Your task to perform on an android device: open app "File Manager" (install if not already installed) Image 0: 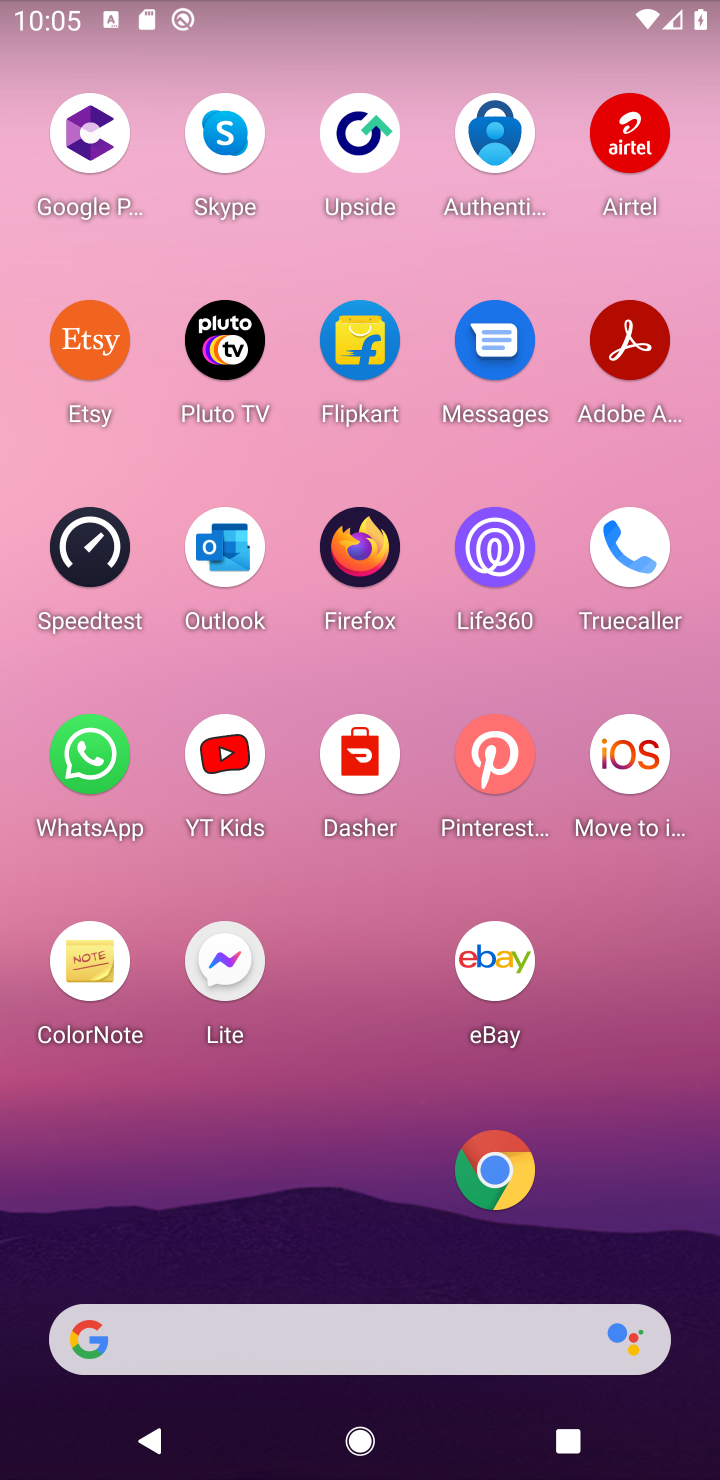
Step 0: drag from (371, 671) to (493, 64)
Your task to perform on an android device: open app "File Manager" (install if not already installed) Image 1: 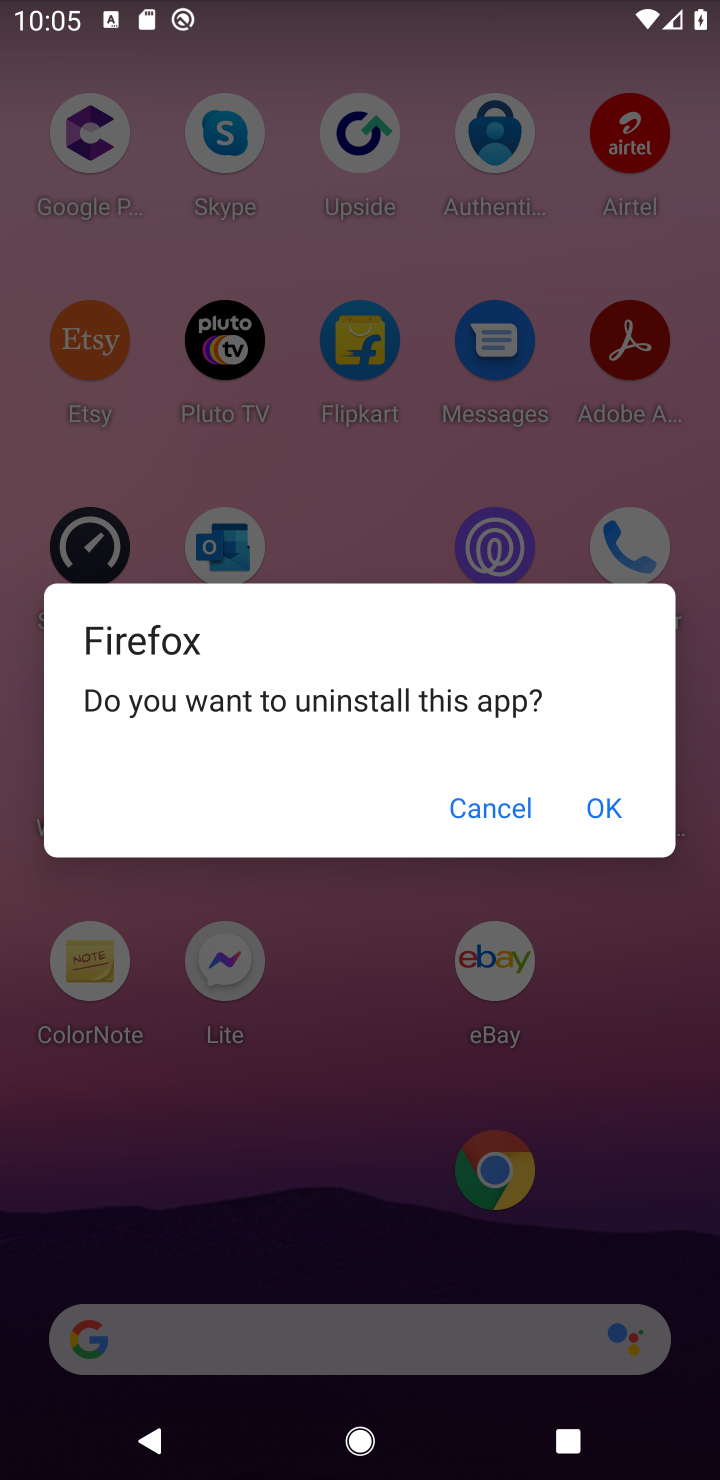
Step 1: click (488, 814)
Your task to perform on an android device: open app "File Manager" (install if not already installed) Image 2: 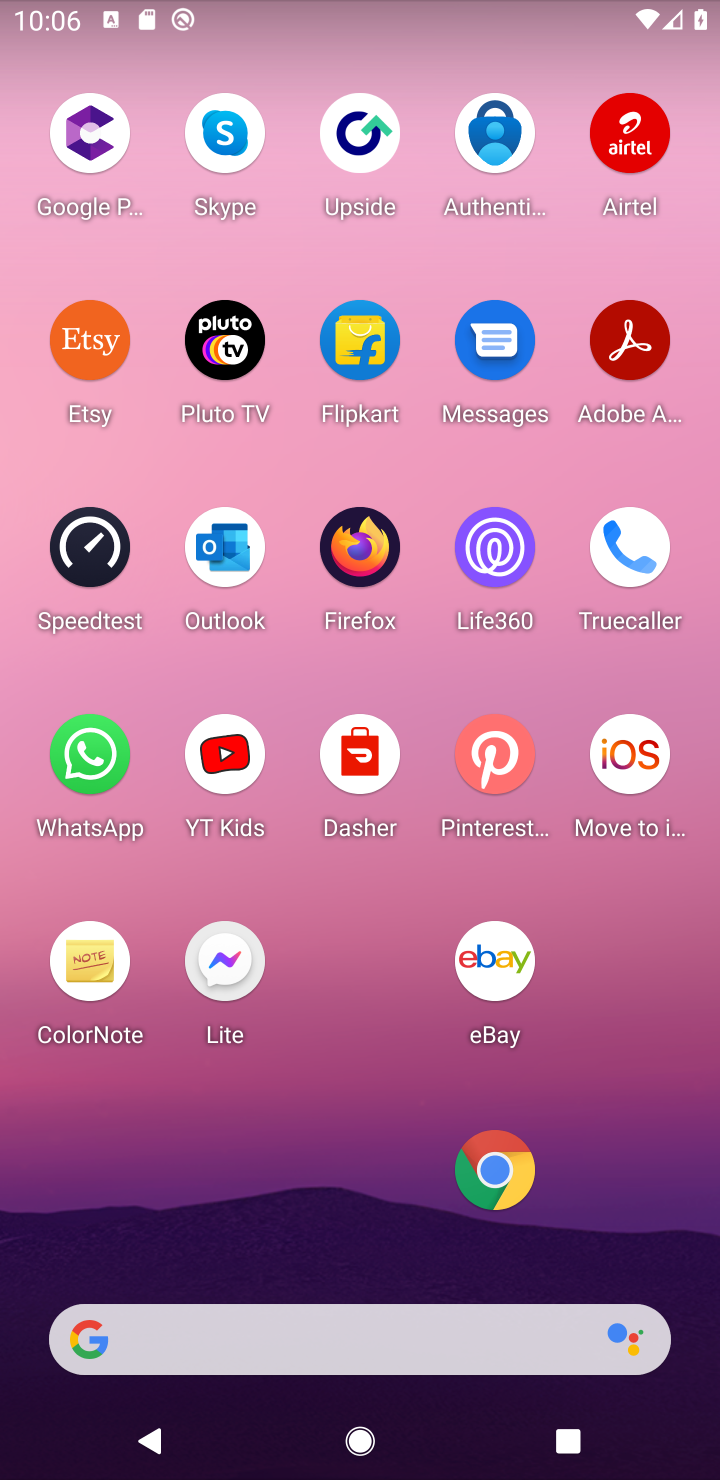
Step 2: drag from (275, 1215) to (407, 50)
Your task to perform on an android device: open app "File Manager" (install if not already installed) Image 3: 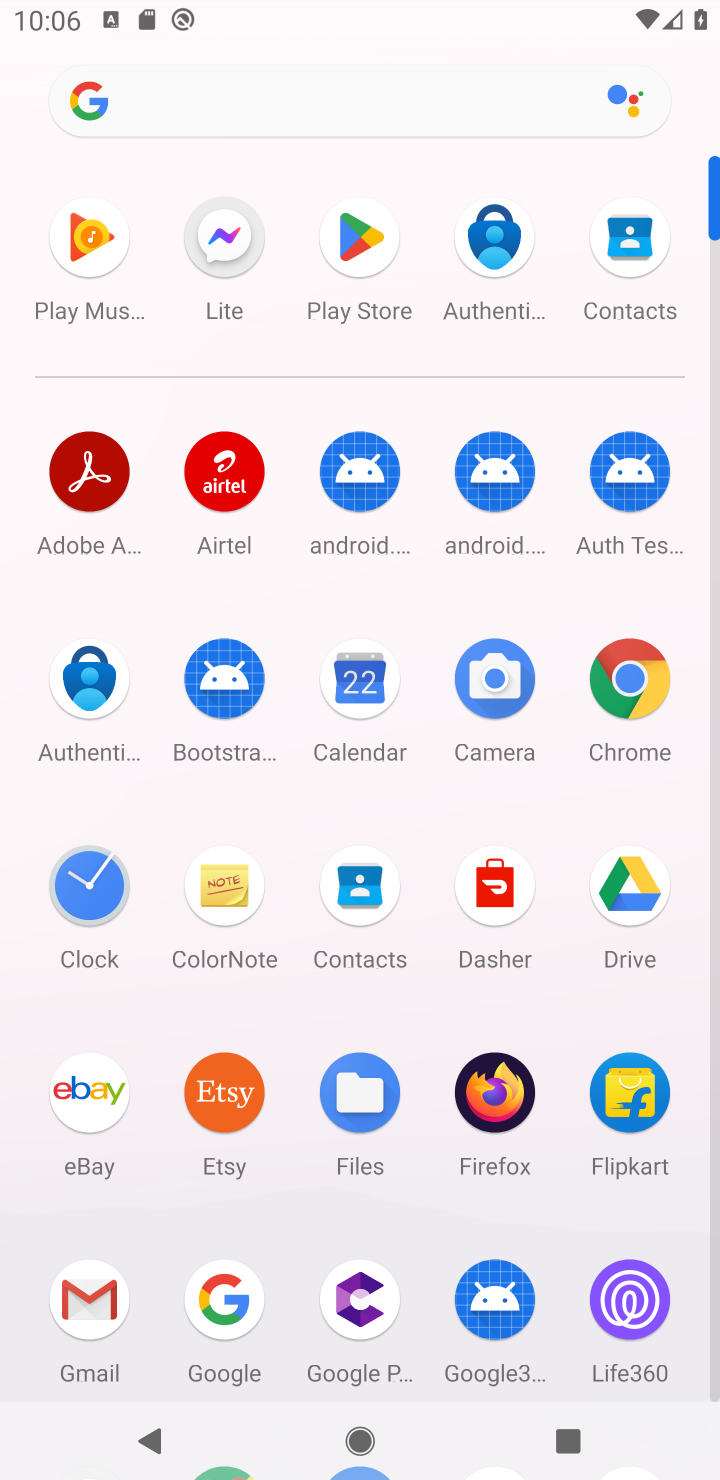
Step 3: click (342, 248)
Your task to perform on an android device: open app "File Manager" (install if not already installed) Image 4: 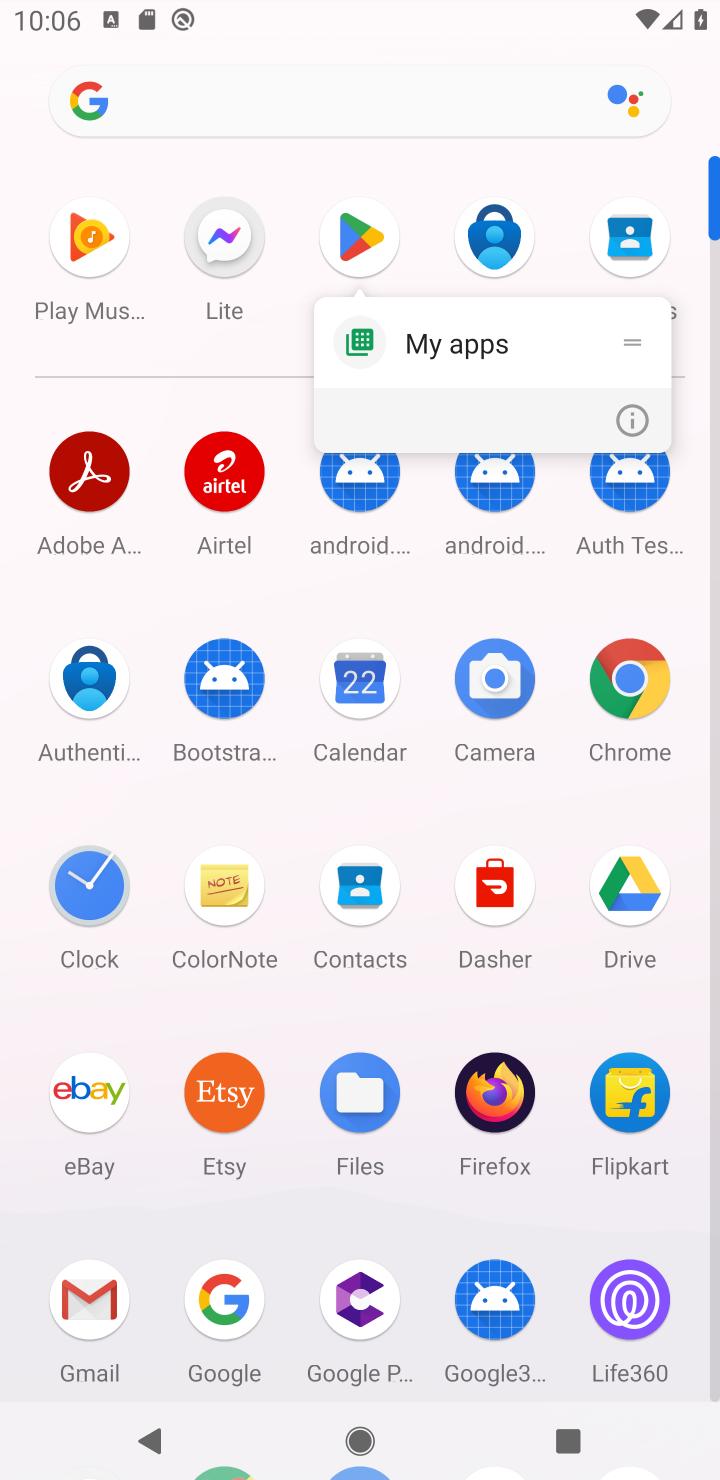
Step 4: click (349, 240)
Your task to perform on an android device: open app "File Manager" (install if not already installed) Image 5: 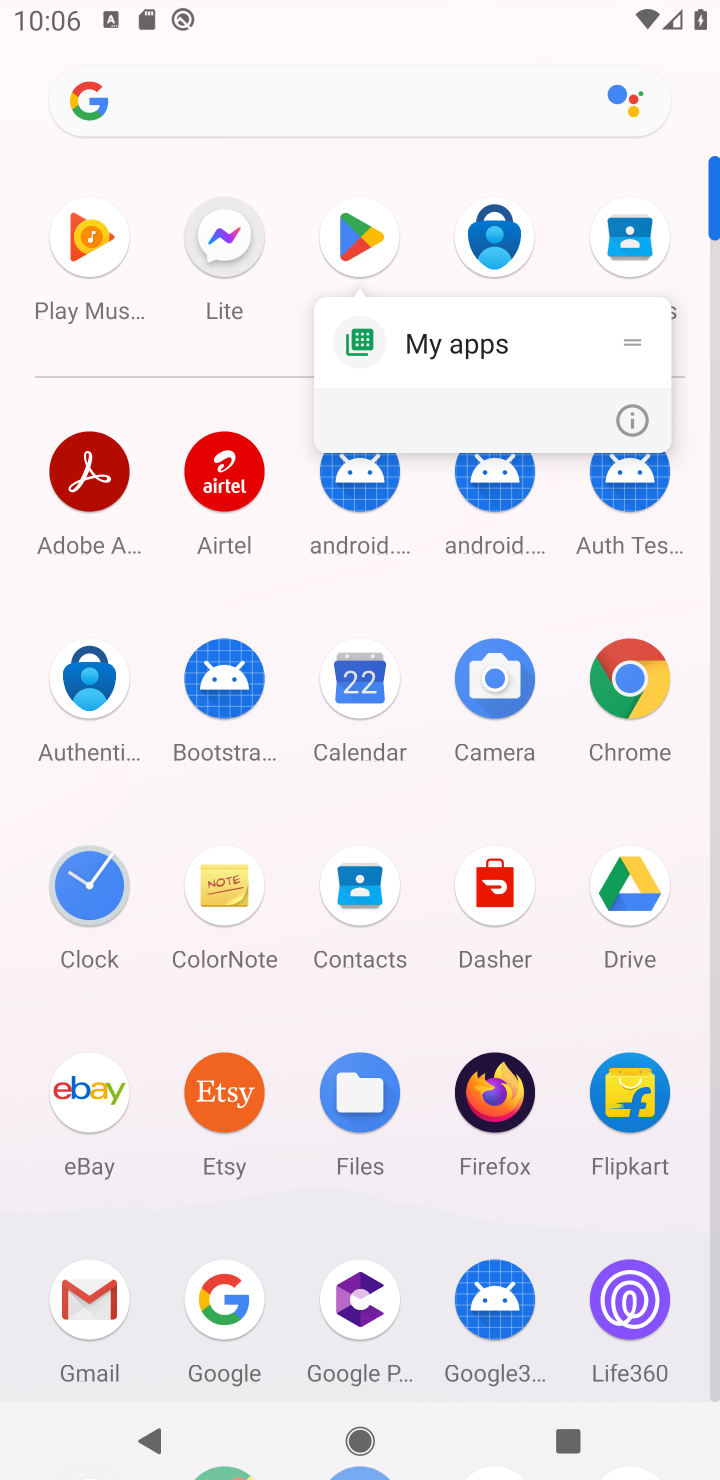
Step 5: click (365, 243)
Your task to perform on an android device: open app "File Manager" (install if not already installed) Image 6: 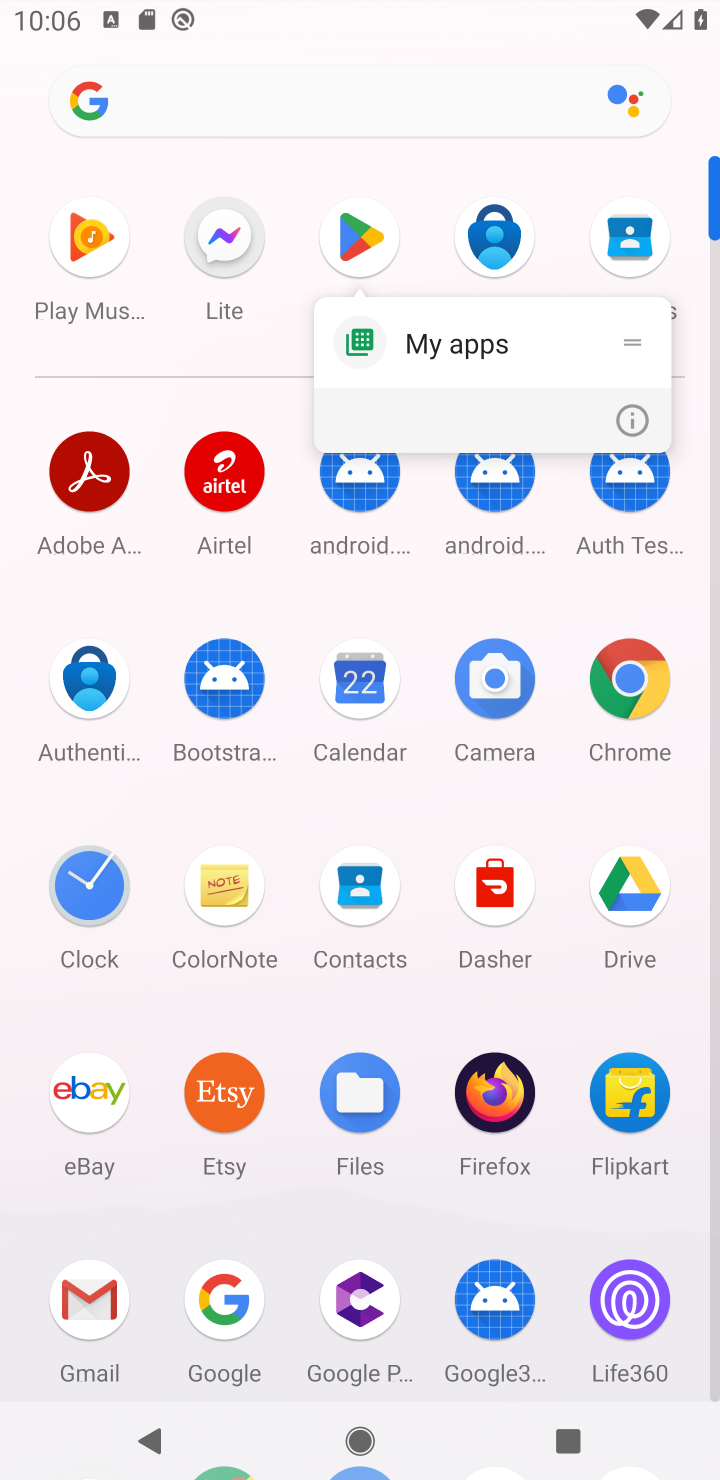
Step 6: click (367, 235)
Your task to perform on an android device: open app "File Manager" (install if not already installed) Image 7: 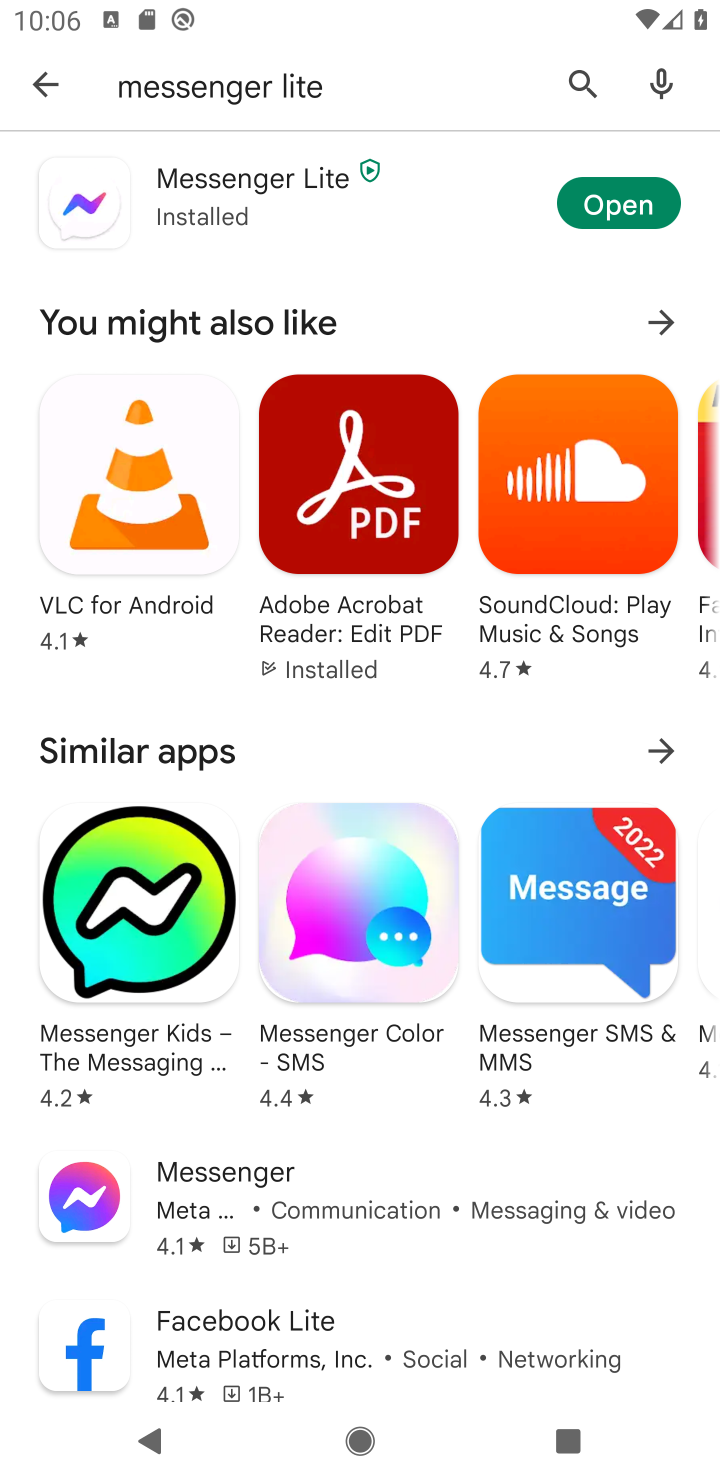
Step 7: click (584, 65)
Your task to perform on an android device: open app "File Manager" (install if not already installed) Image 8: 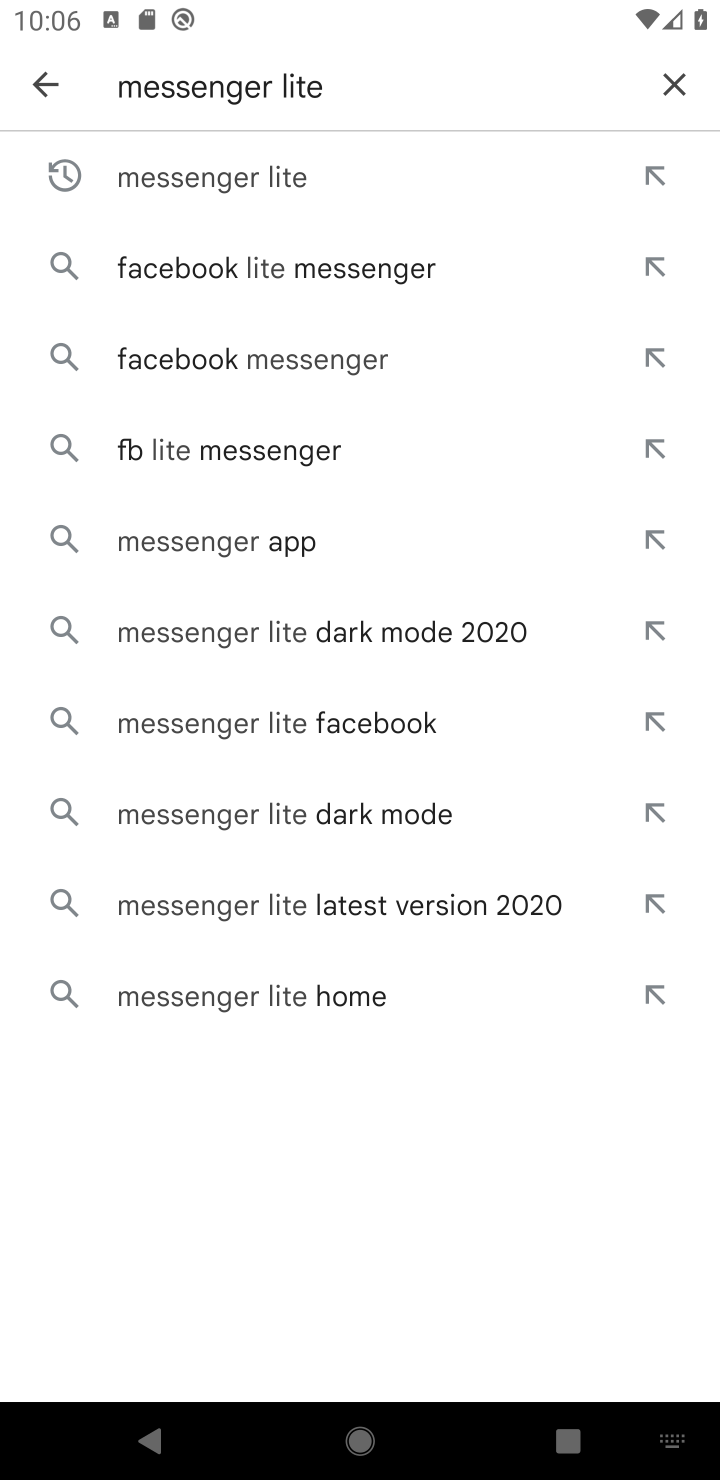
Step 8: click (686, 84)
Your task to perform on an android device: open app "File Manager" (install if not already installed) Image 9: 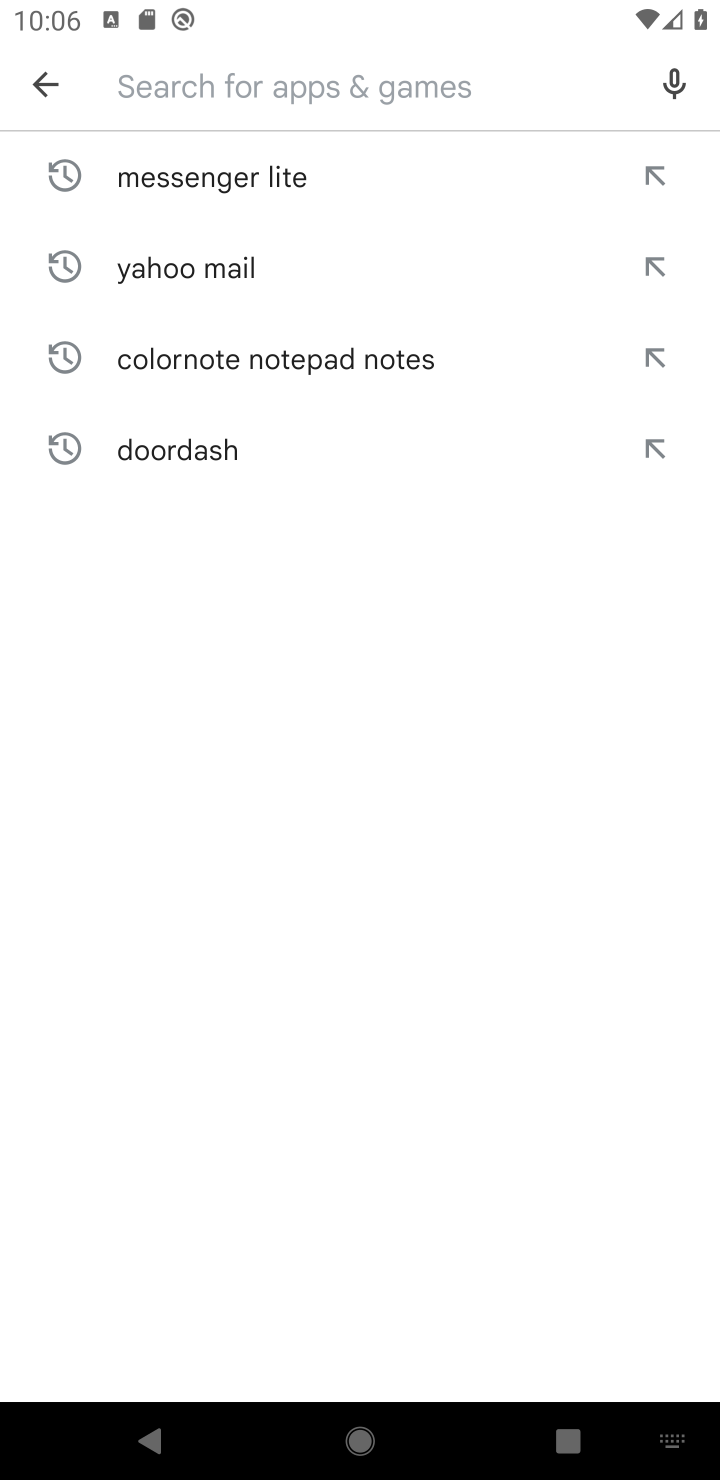
Step 9: click (181, 78)
Your task to perform on an android device: open app "File Manager" (install if not already installed) Image 10: 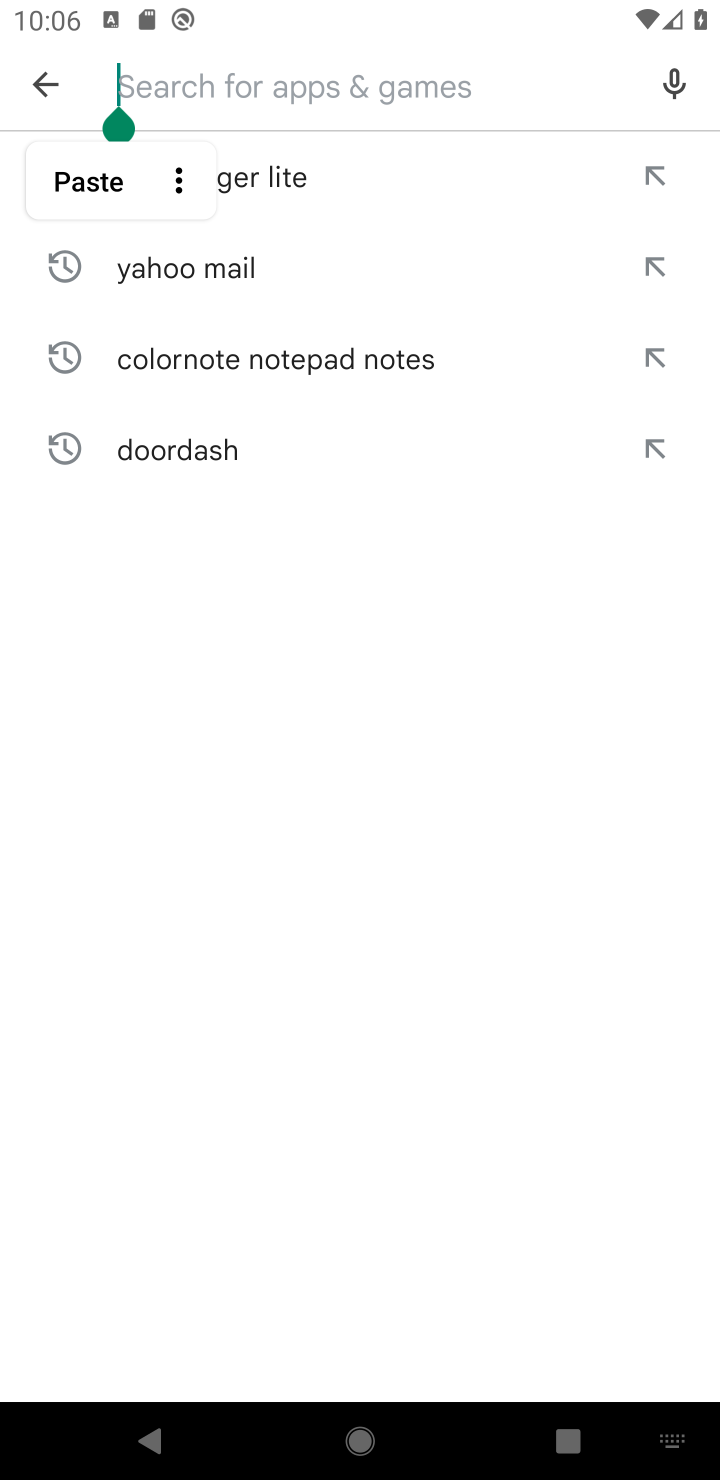
Step 10: type "File Manager"
Your task to perform on an android device: open app "File Manager" (install if not already installed) Image 11: 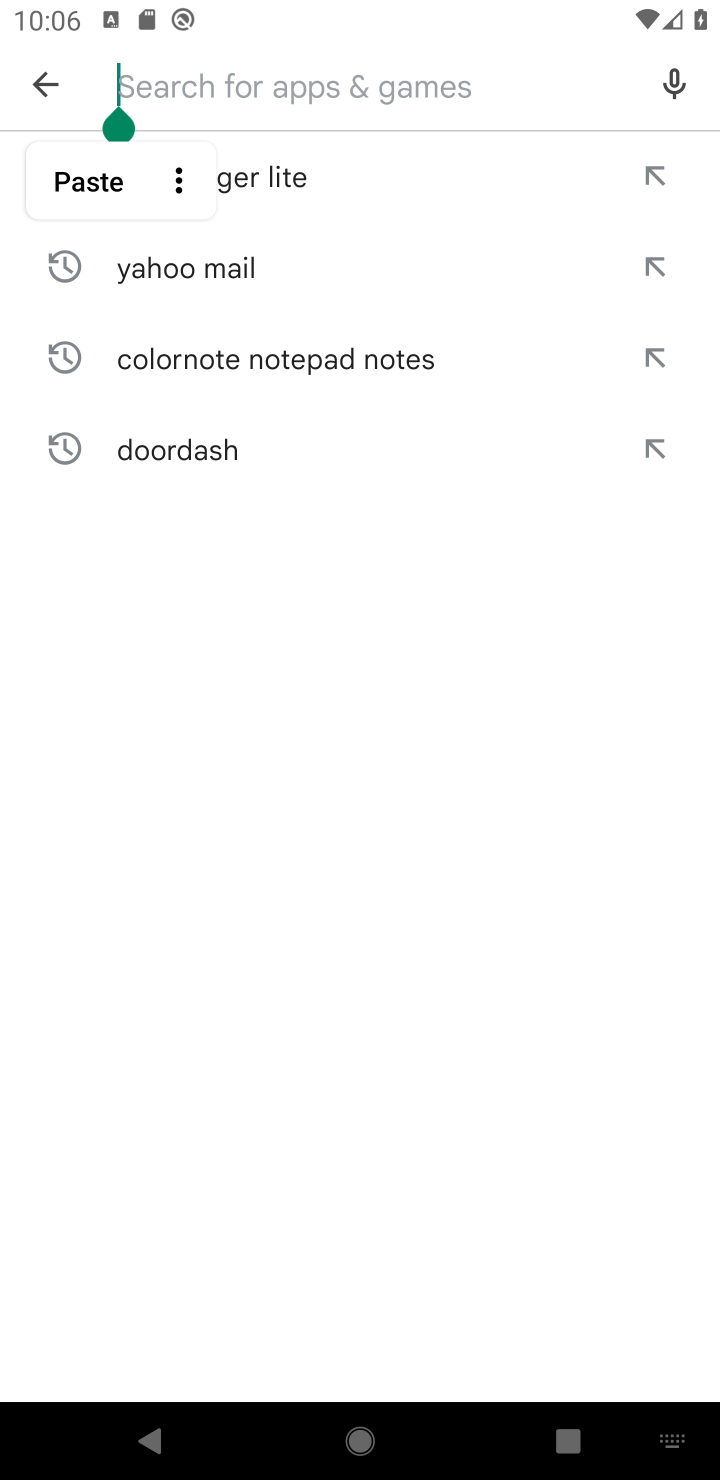
Step 11: click (356, 1098)
Your task to perform on an android device: open app "File Manager" (install if not already installed) Image 12: 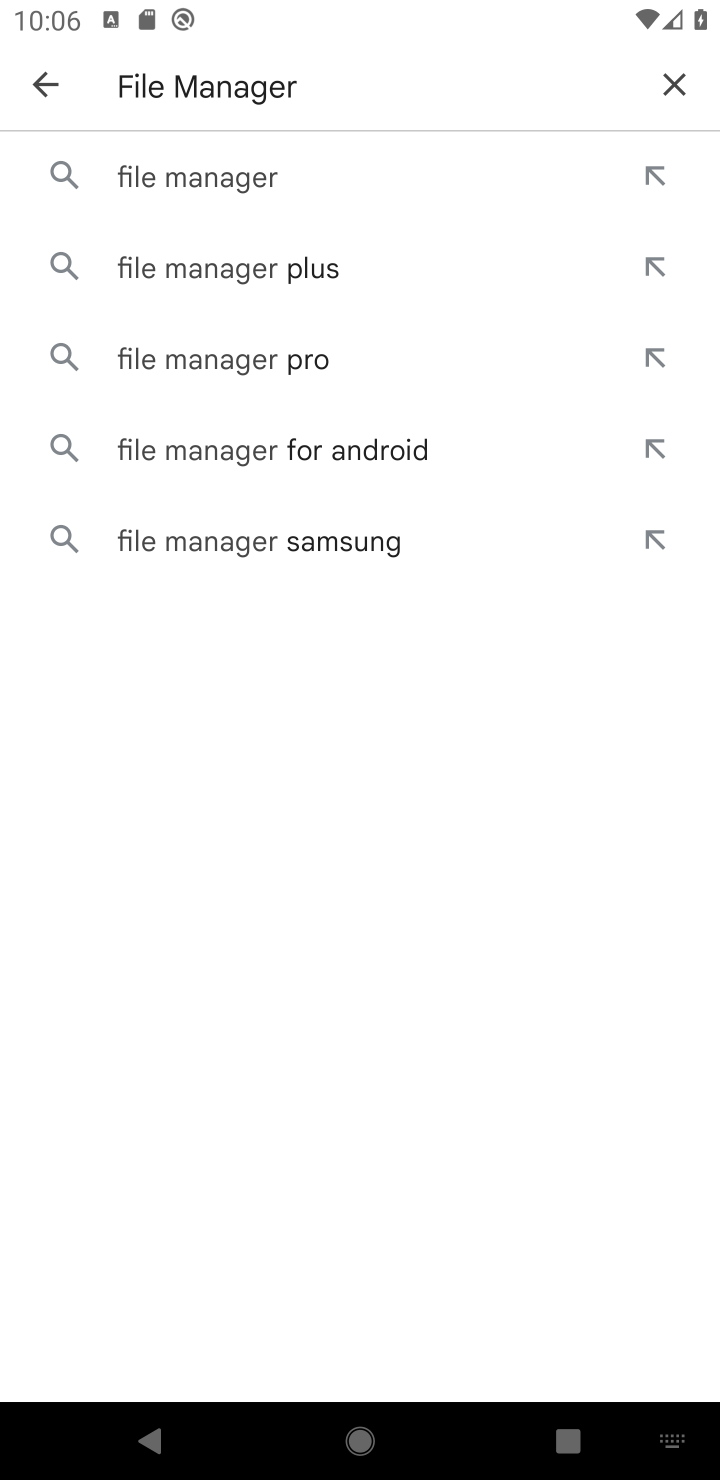
Step 12: click (275, 182)
Your task to perform on an android device: open app "File Manager" (install if not already installed) Image 13: 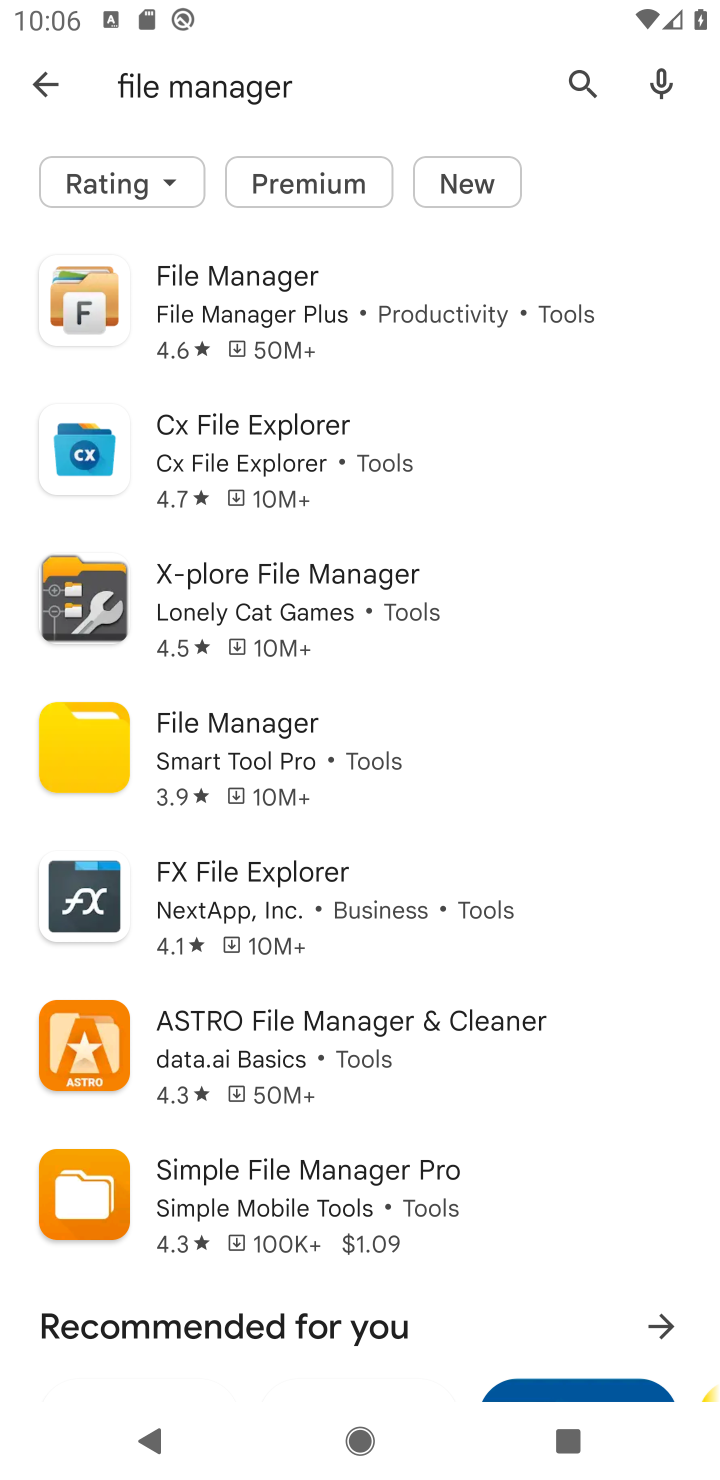
Step 13: click (286, 302)
Your task to perform on an android device: open app "File Manager" (install if not already installed) Image 14: 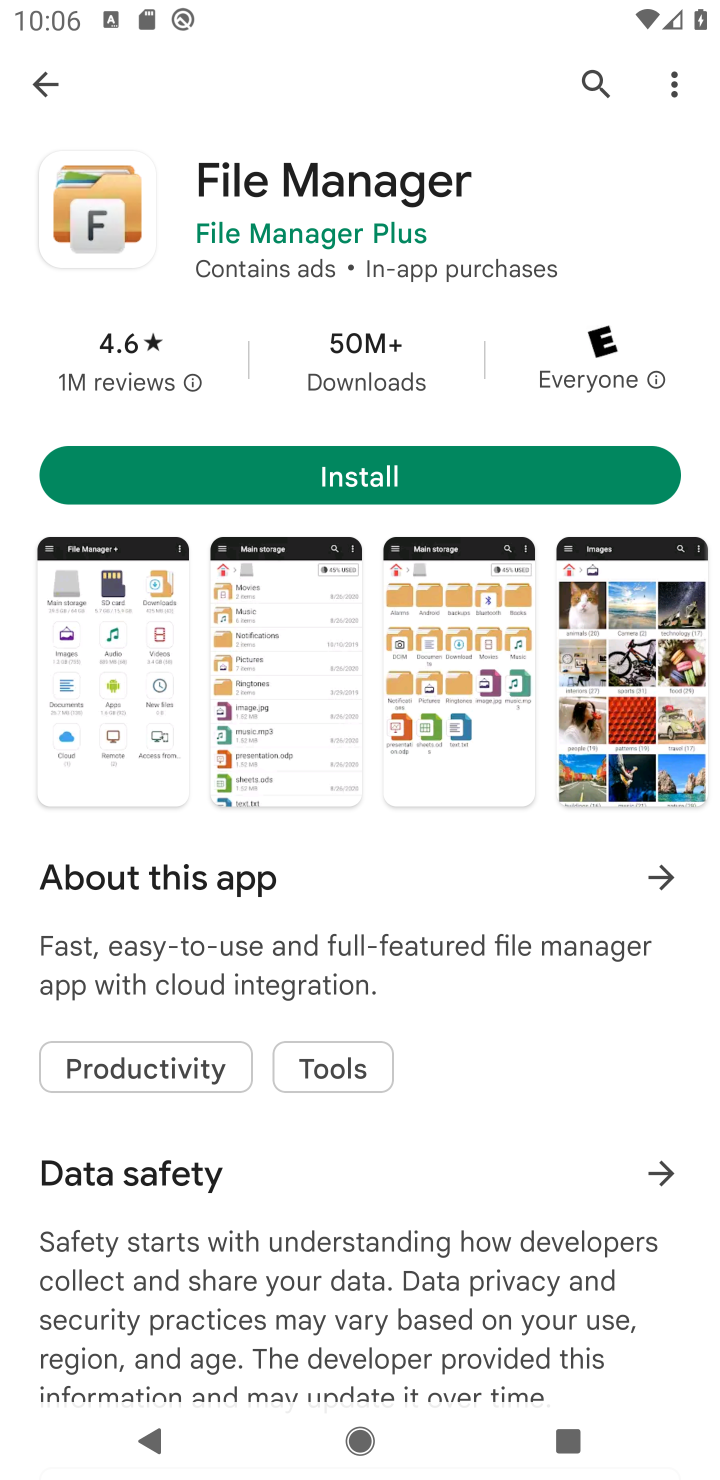
Step 14: click (328, 472)
Your task to perform on an android device: open app "File Manager" (install if not already installed) Image 15: 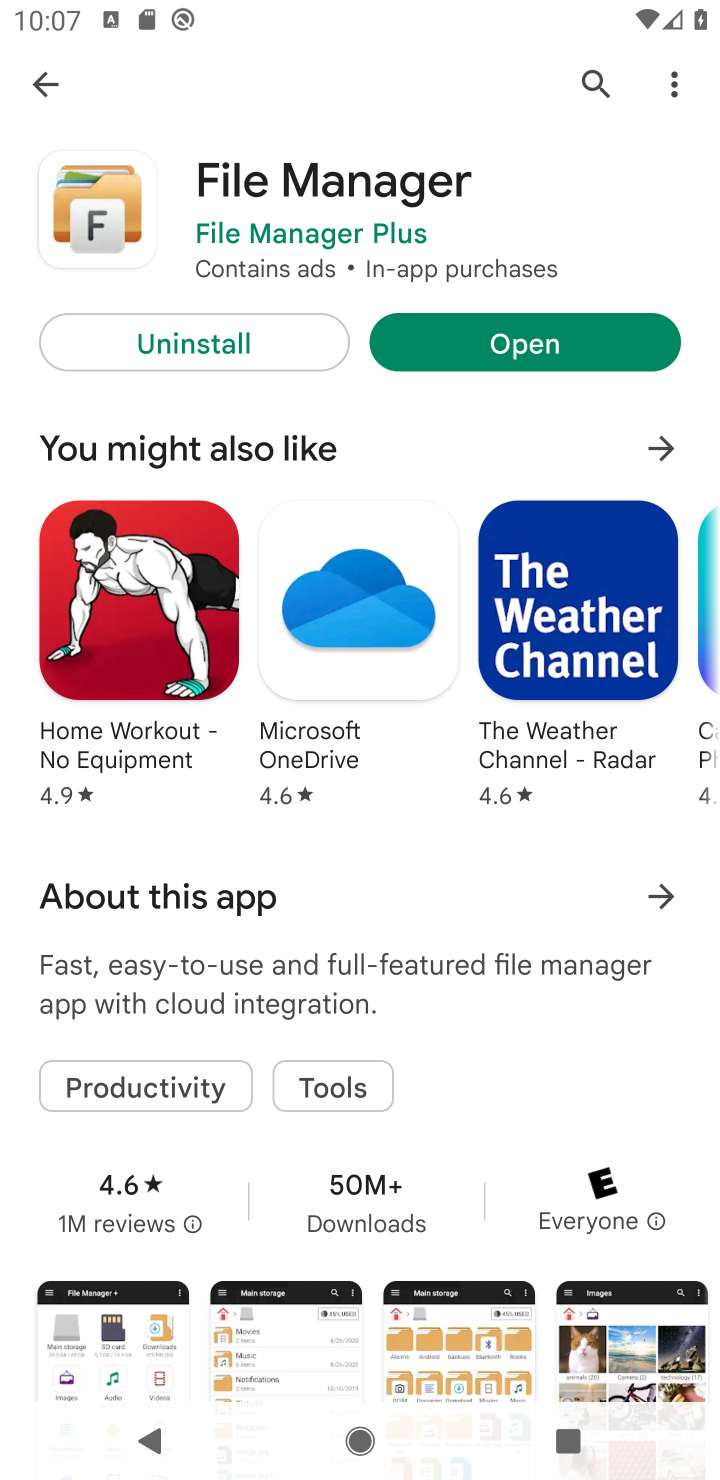
Step 15: click (604, 334)
Your task to perform on an android device: open app "File Manager" (install if not already installed) Image 16: 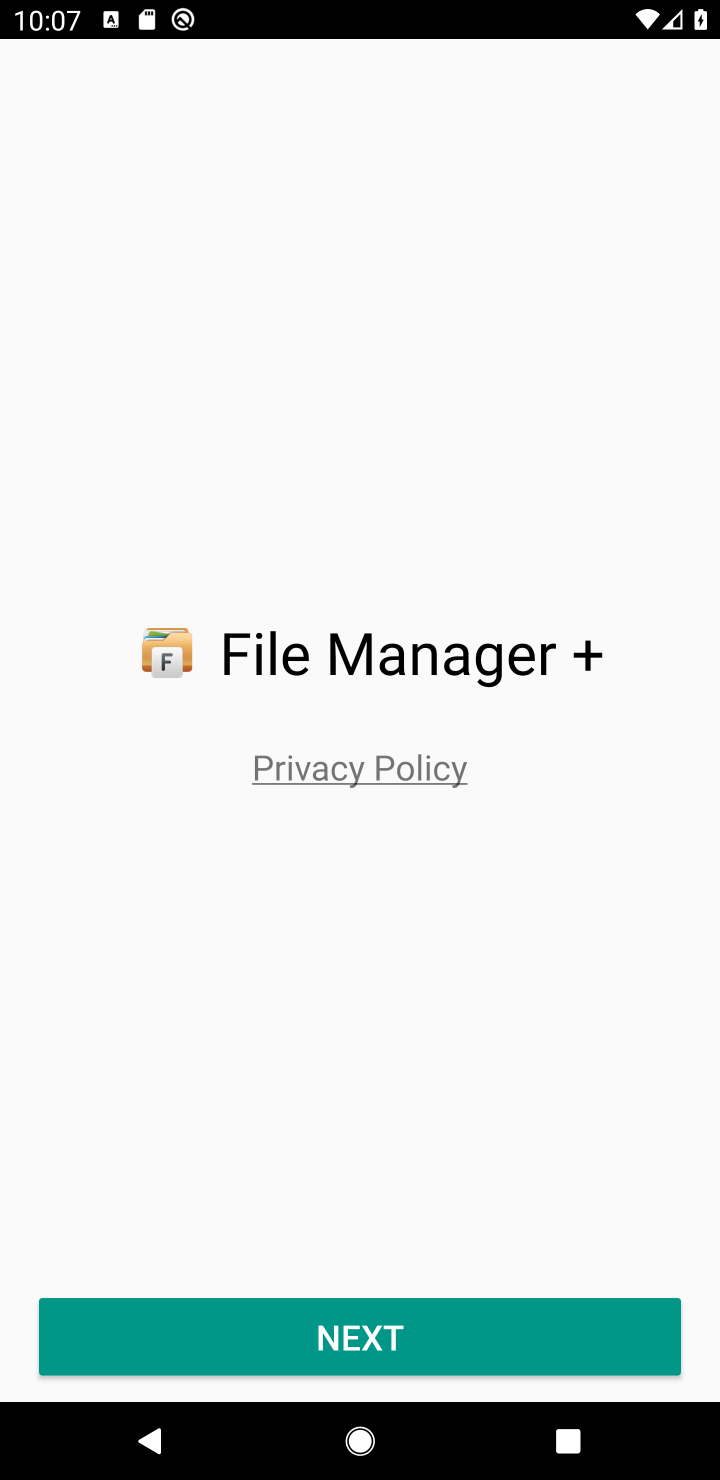
Step 16: task complete